Your task to perform on an android device: Open the web browser Image 0: 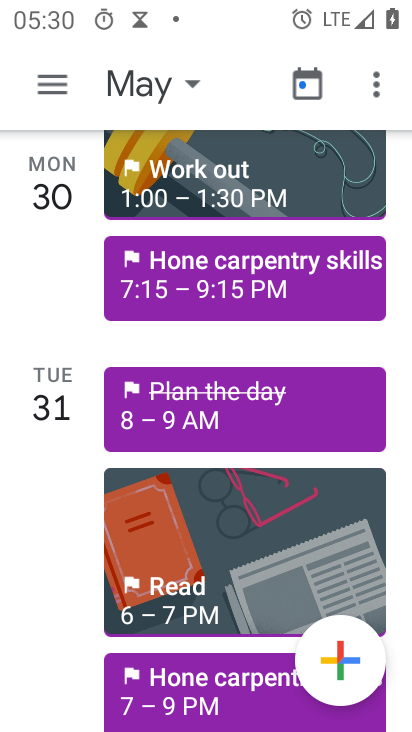
Step 0: press home button
Your task to perform on an android device: Open the web browser Image 1: 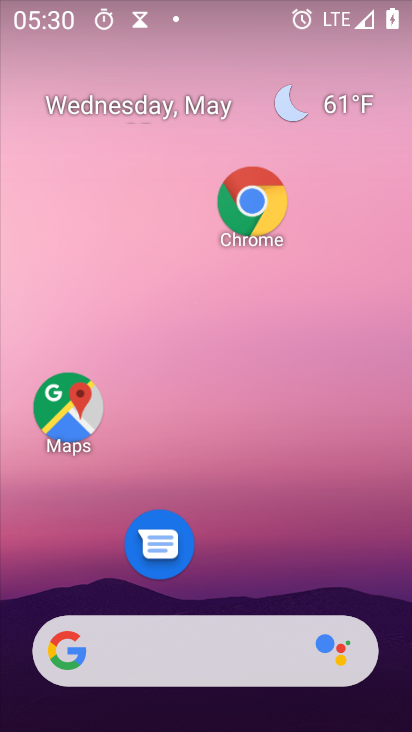
Step 1: click (251, 207)
Your task to perform on an android device: Open the web browser Image 2: 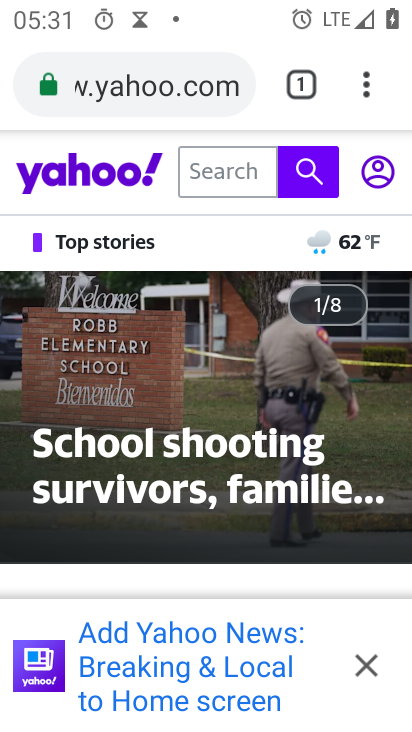
Step 2: click (307, 79)
Your task to perform on an android device: Open the web browser Image 3: 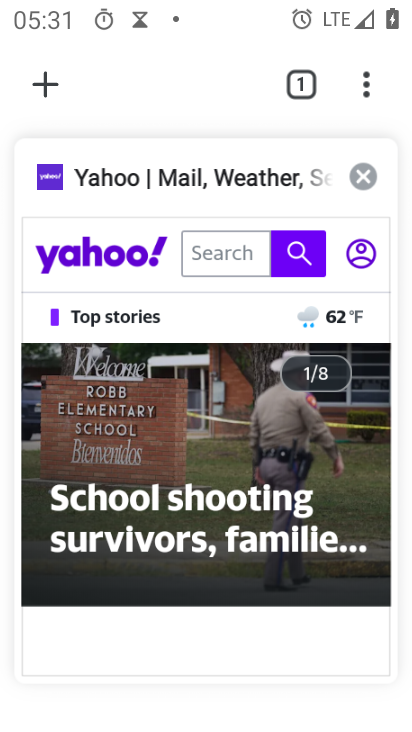
Step 3: click (364, 171)
Your task to perform on an android device: Open the web browser Image 4: 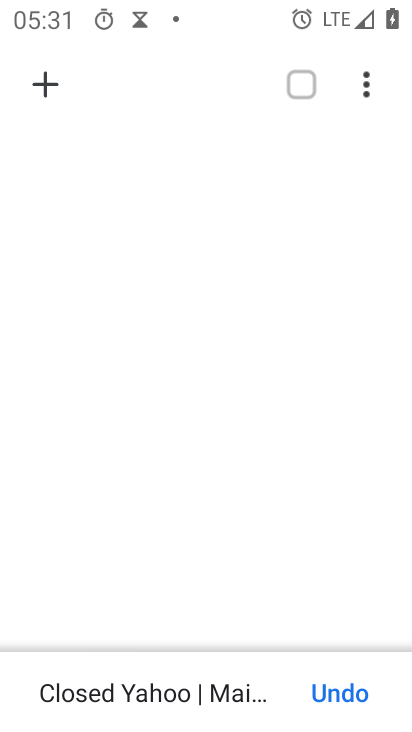
Step 4: click (46, 90)
Your task to perform on an android device: Open the web browser Image 5: 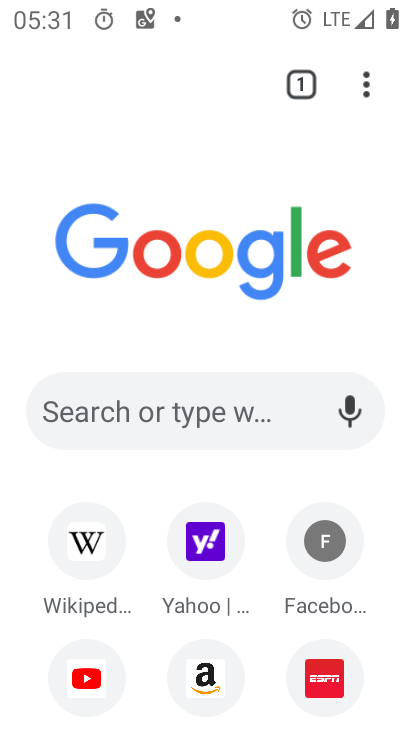
Step 5: task complete